Your task to perform on an android device: Open settings Image 0: 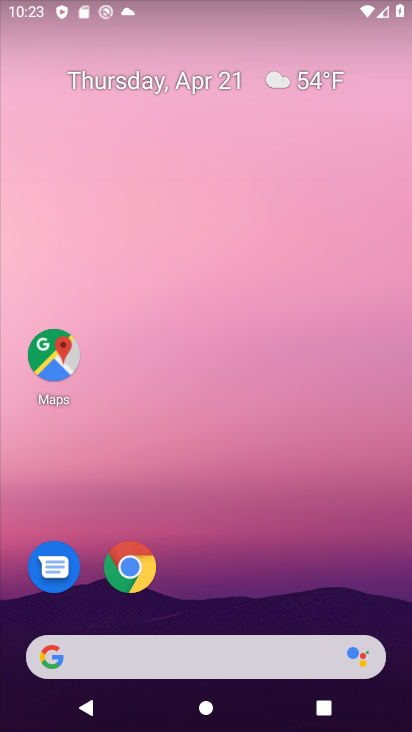
Step 0: drag from (233, 530) to (213, 54)
Your task to perform on an android device: Open settings Image 1: 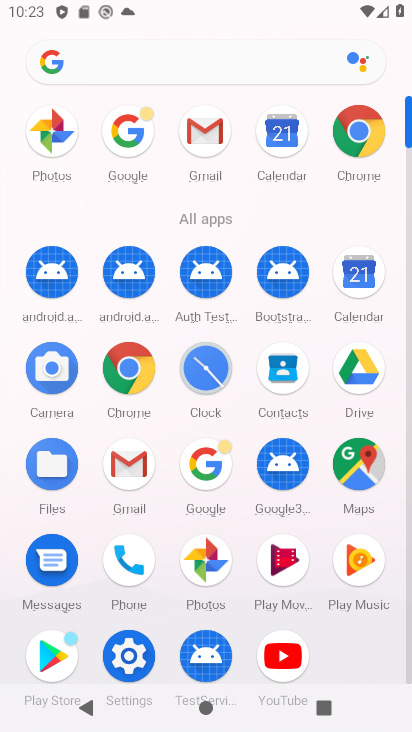
Step 1: click (130, 652)
Your task to perform on an android device: Open settings Image 2: 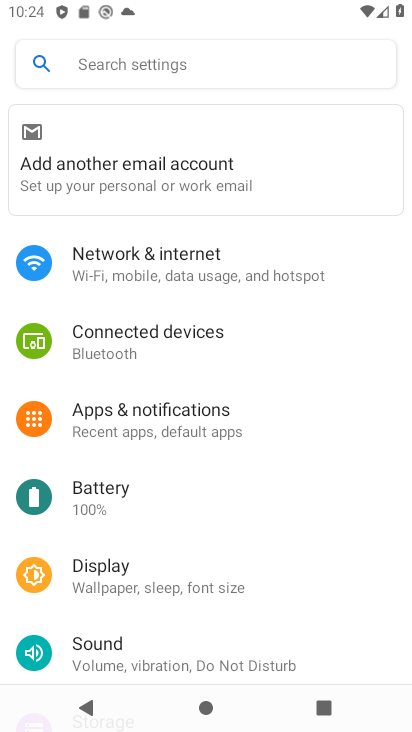
Step 2: task complete